Your task to perform on an android device: What's on Reddit this week Image 0: 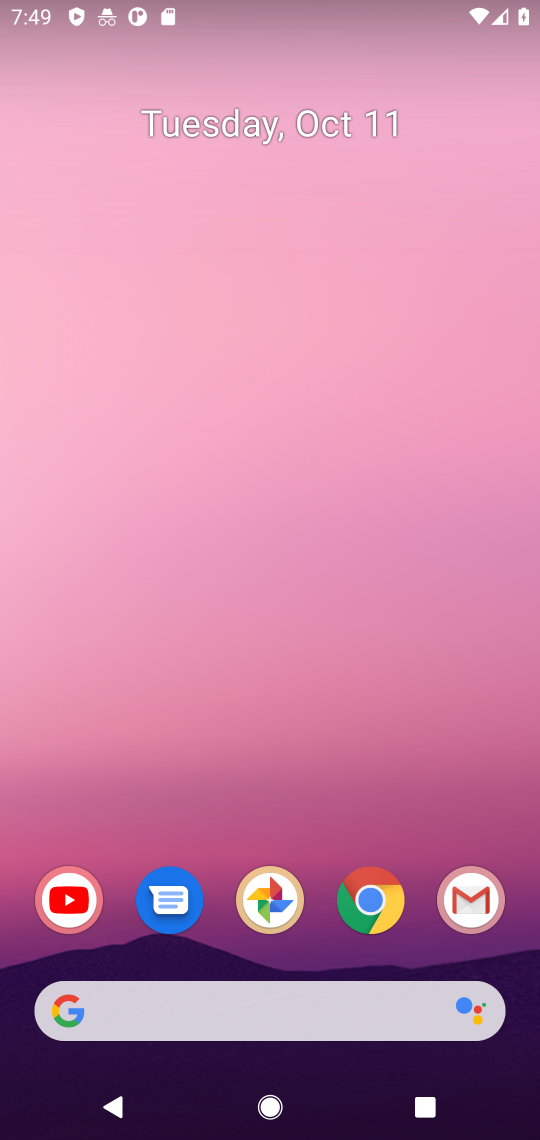
Step 0: click (388, 897)
Your task to perform on an android device: What's on Reddit this week Image 1: 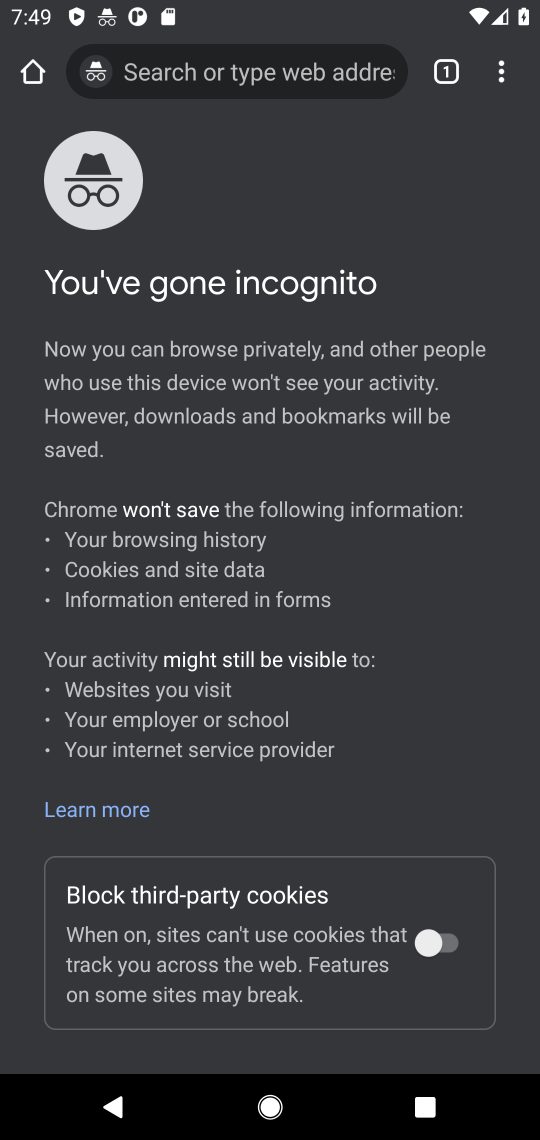
Step 1: click (275, 74)
Your task to perform on an android device: What's on Reddit this week Image 2: 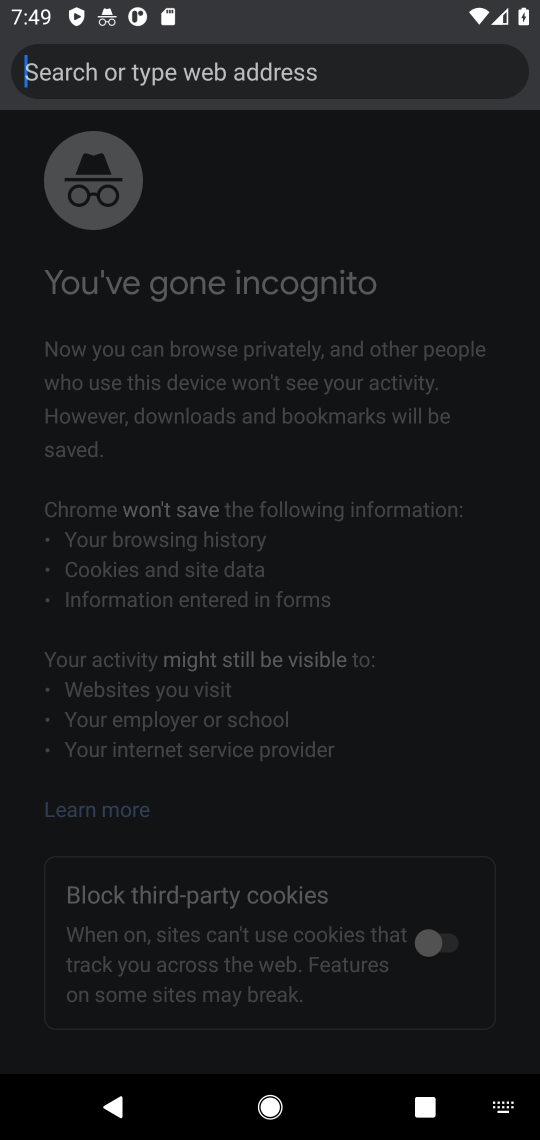
Step 2: type "Reddit this week"
Your task to perform on an android device: What's on Reddit this week Image 3: 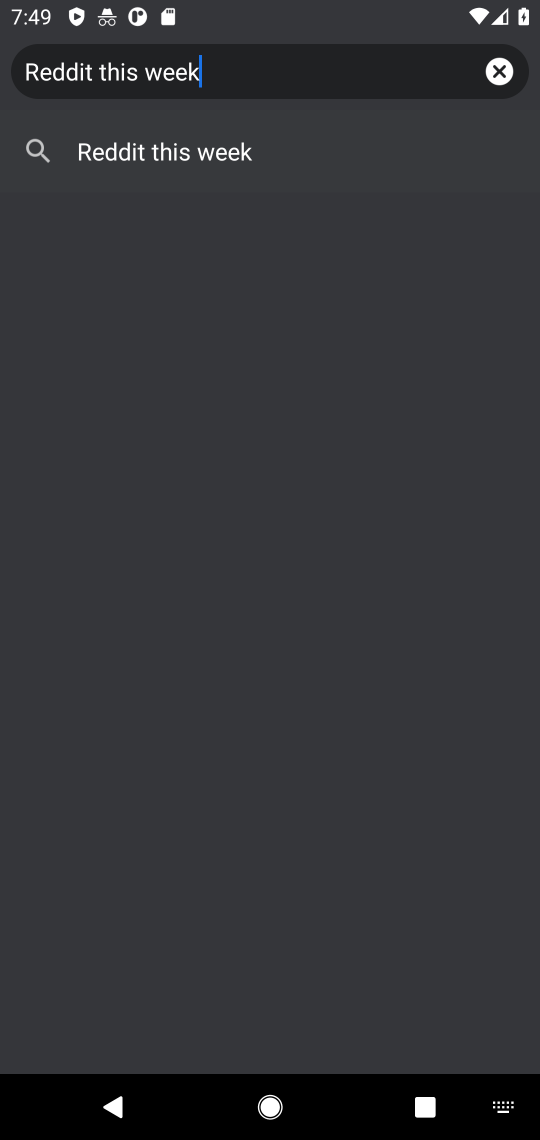
Step 3: click (240, 153)
Your task to perform on an android device: What's on Reddit this week Image 4: 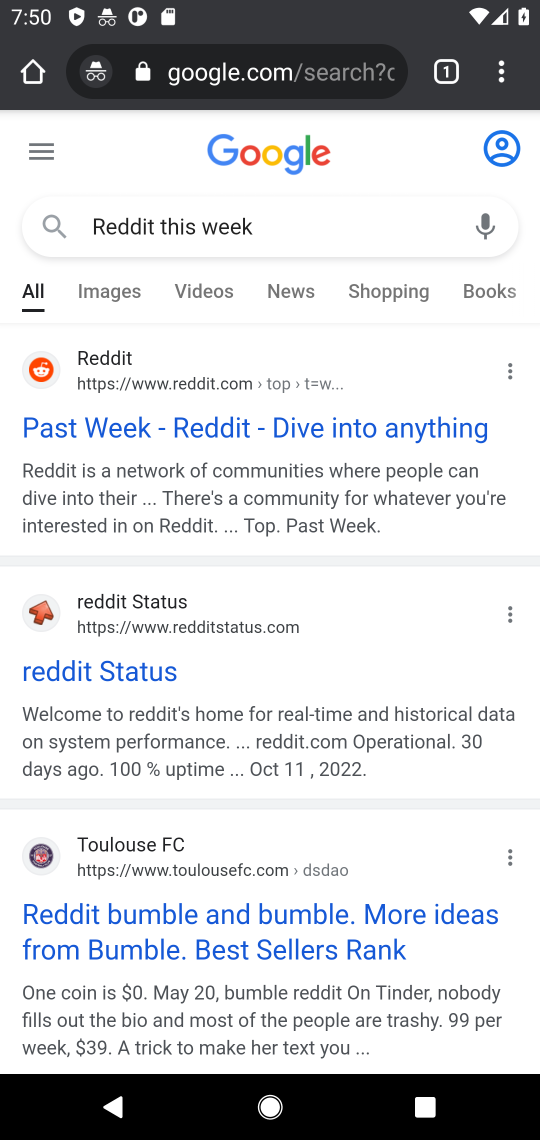
Step 4: click (226, 421)
Your task to perform on an android device: What's on Reddit this week Image 5: 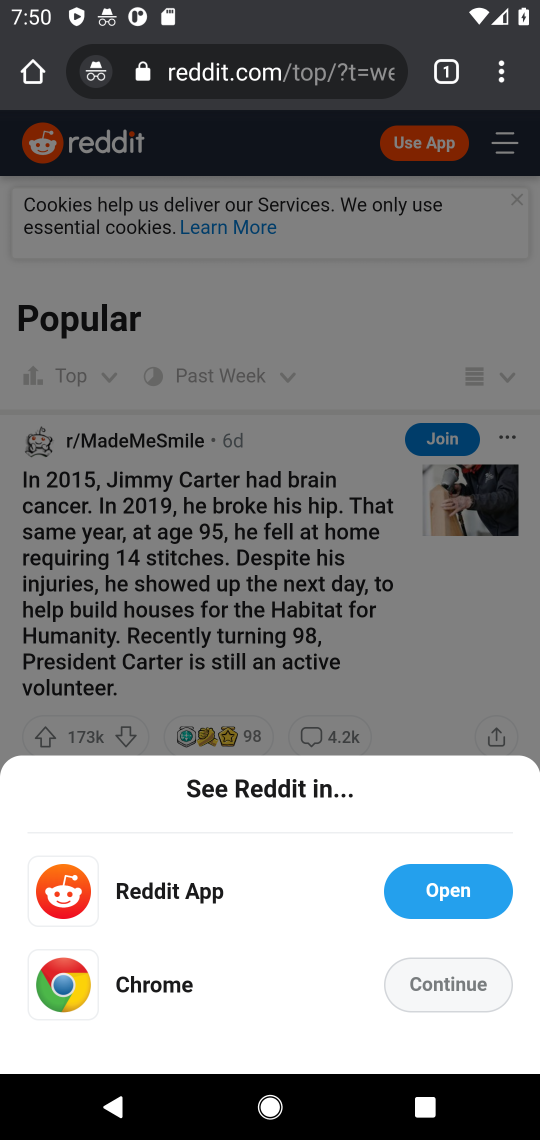
Step 5: click (441, 978)
Your task to perform on an android device: What's on Reddit this week Image 6: 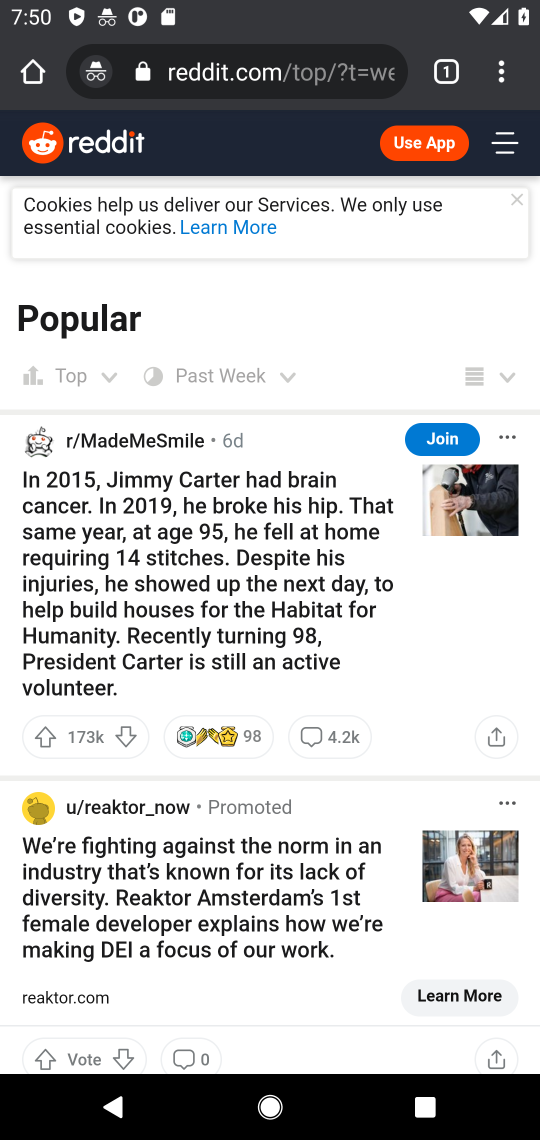
Step 6: task complete